Your task to perform on an android device: Open Youtube and go to the subscriptions tab Image 0: 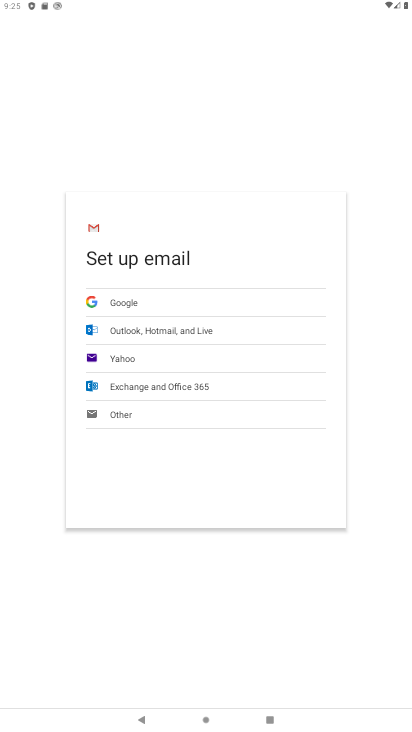
Step 0: press home button
Your task to perform on an android device: Open Youtube and go to the subscriptions tab Image 1: 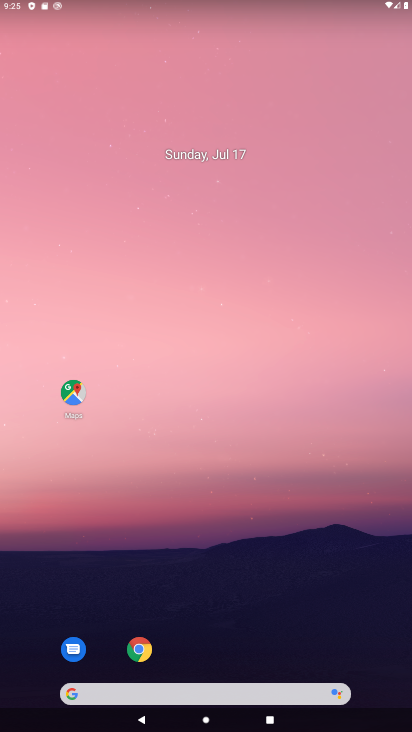
Step 1: drag from (66, 547) to (187, 4)
Your task to perform on an android device: Open Youtube and go to the subscriptions tab Image 2: 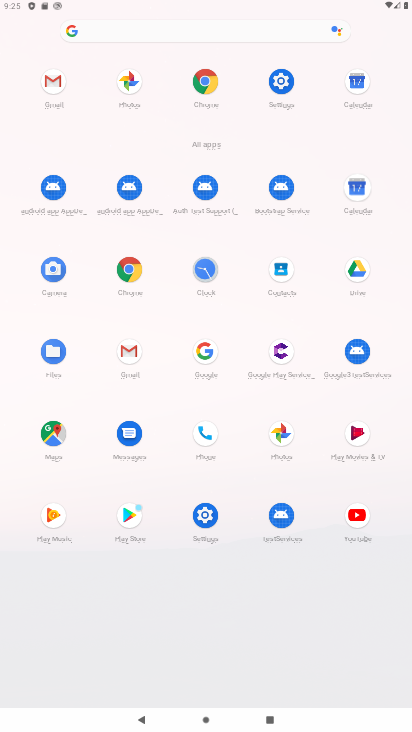
Step 2: click (347, 527)
Your task to perform on an android device: Open Youtube and go to the subscriptions tab Image 3: 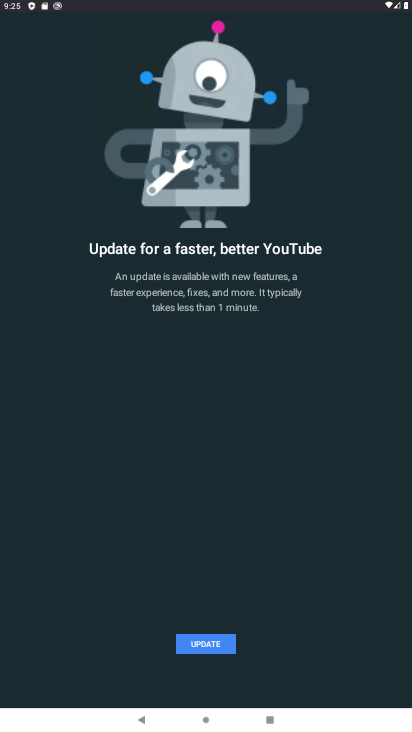
Step 3: click (191, 641)
Your task to perform on an android device: Open Youtube and go to the subscriptions tab Image 4: 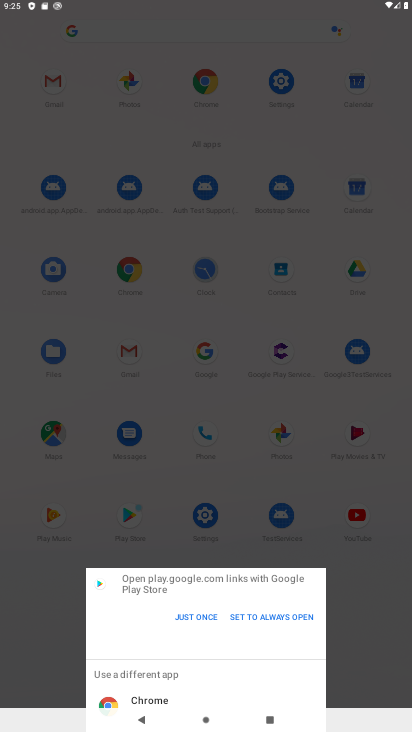
Step 4: click (193, 621)
Your task to perform on an android device: Open Youtube and go to the subscriptions tab Image 5: 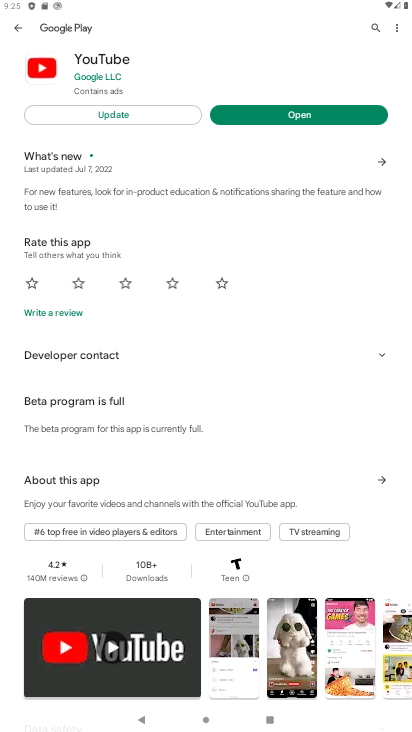
Step 5: click (279, 109)
Your task to perform on an android device: Open Youtube and go to the subscriptions tab Image 6: 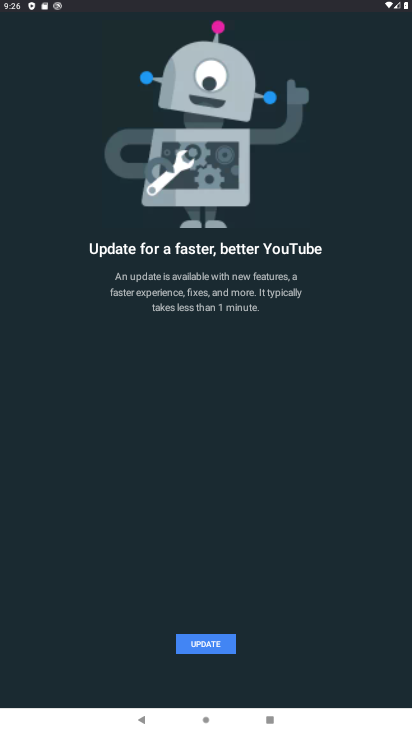
Step 6: task complete